Your task to perform on an android device: open a bookmark in the chrome app Image 0: 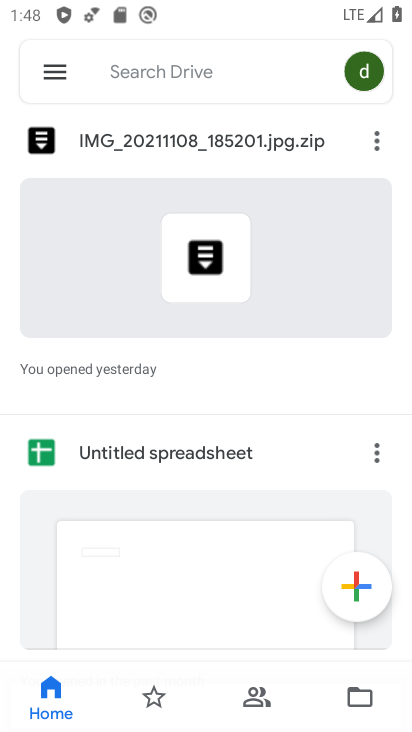
Step 0: press home button
Your task to perform on an android device: open a bookmark in the chrome app Image 1: 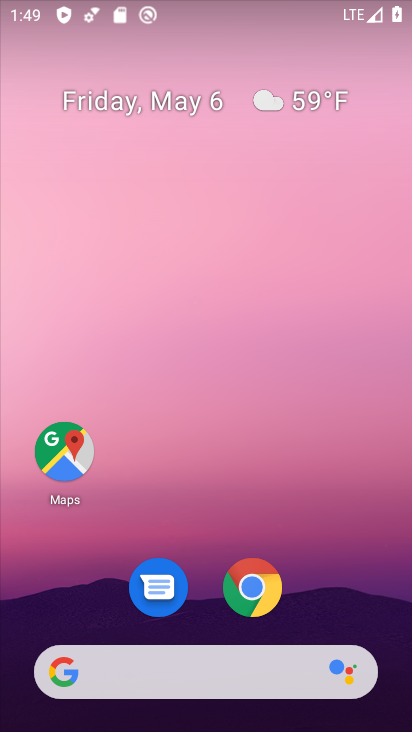
Step 1: drag from (325, 556) to (301, 103)
Your task to perform on an android device: open a bookmark in the chrome app Image 2: 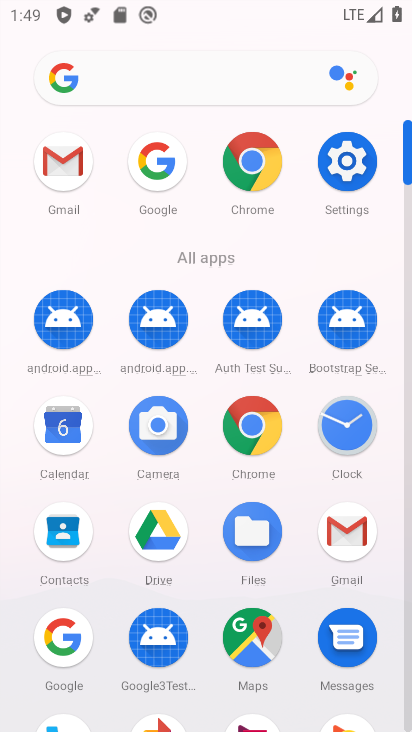
Step 2: click (244, 435)
Your task to perform on an android device: open a bookmark in the chrome app Image 3: 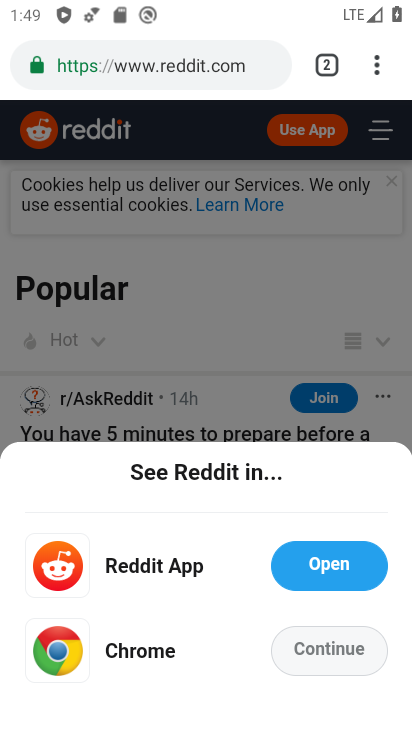
Step 3: task complete